Your task to perform on an android device: open app "Truecaller" (install if not already installed) and enter user name: "coauthor@gmail.com" and password: "quadrangle" Image 0: 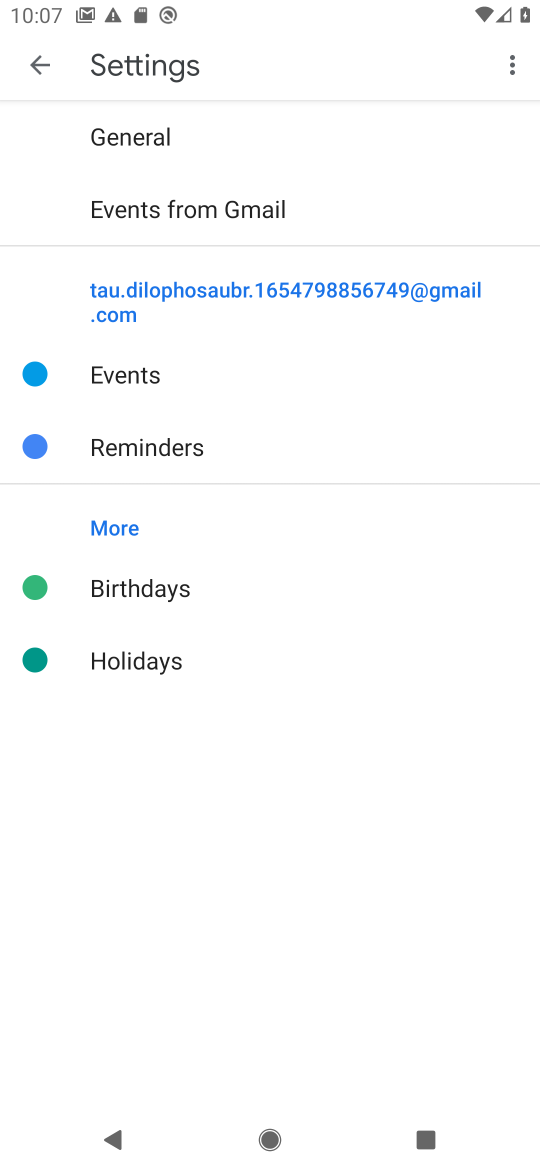
Step 0: press back button
Your task to perform on an android device: open app "Truecaller" (install if not already installed) and enter user name: "coauthor@gmail.com" and password: "quadrangle" Image 1: 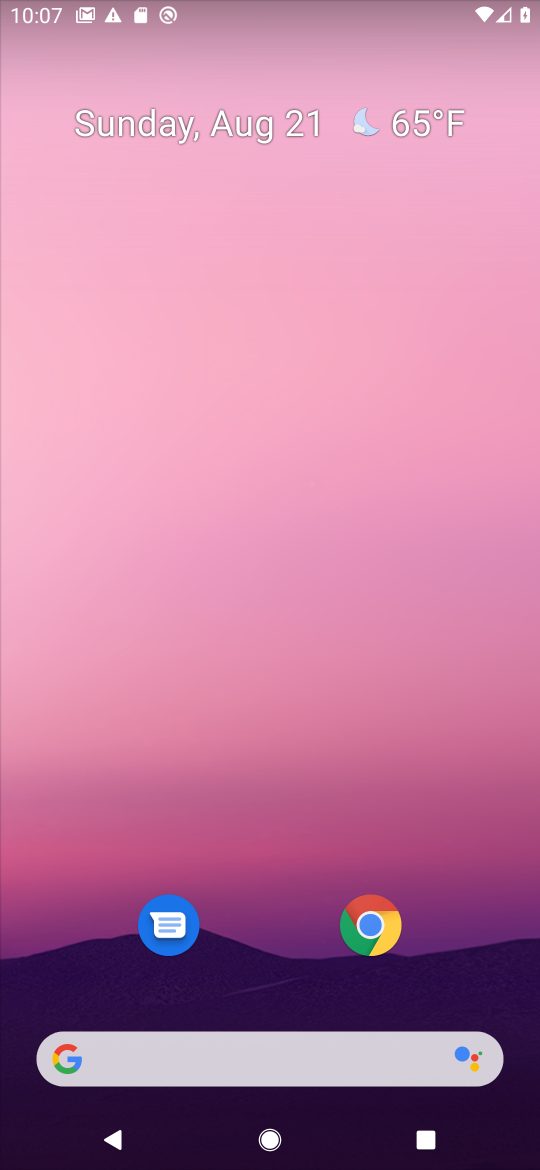
Step 1: drag from (267, 962) to (387, 7)
Your task to perform on an android device: open app "Truecaller" (install if not already installed) and enter user name: "coauthor@gmail.com" and password: "quadrangle" Image 2: 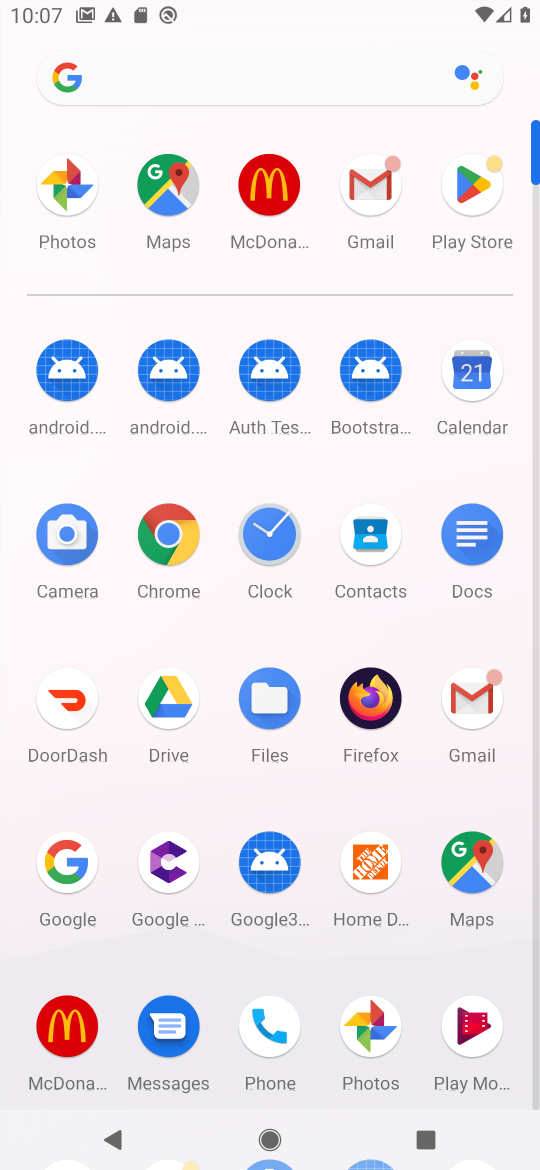
Step 2: click (482, 199)
Your task to perform on an android device: open app "Truecaller" (install if not already installed) and enter user name: "coauthor@gmail.com" and password: "quadrangle" Image 3: 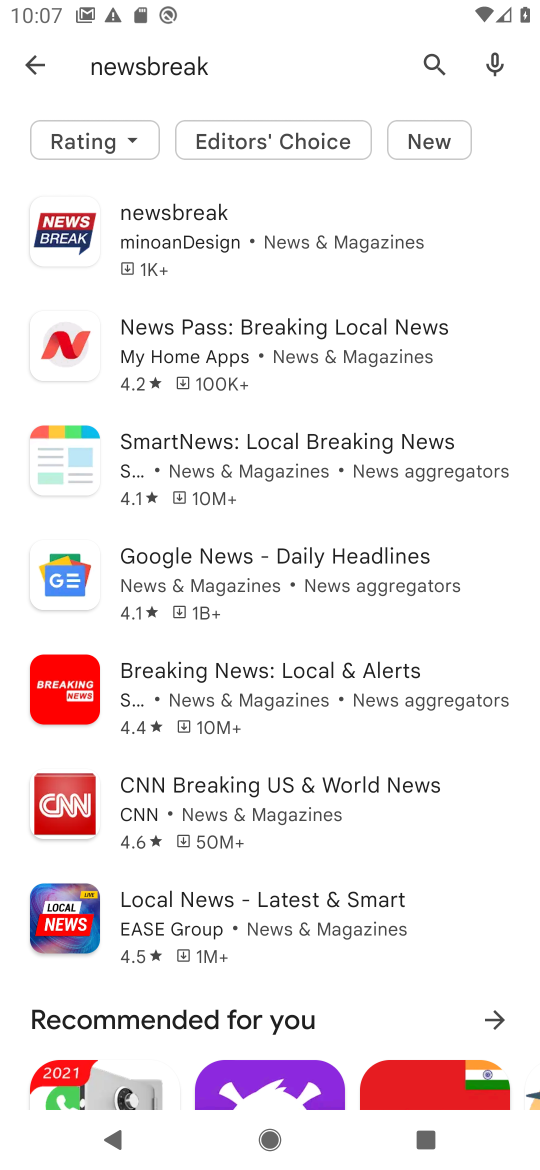
Step 3: click (435, 44)
Your task to perform on an android device: open app "Truecaller" (install if not already installed) and enter user name: "coauthor@gmail.com" and password: "quadrangle" Image 4: 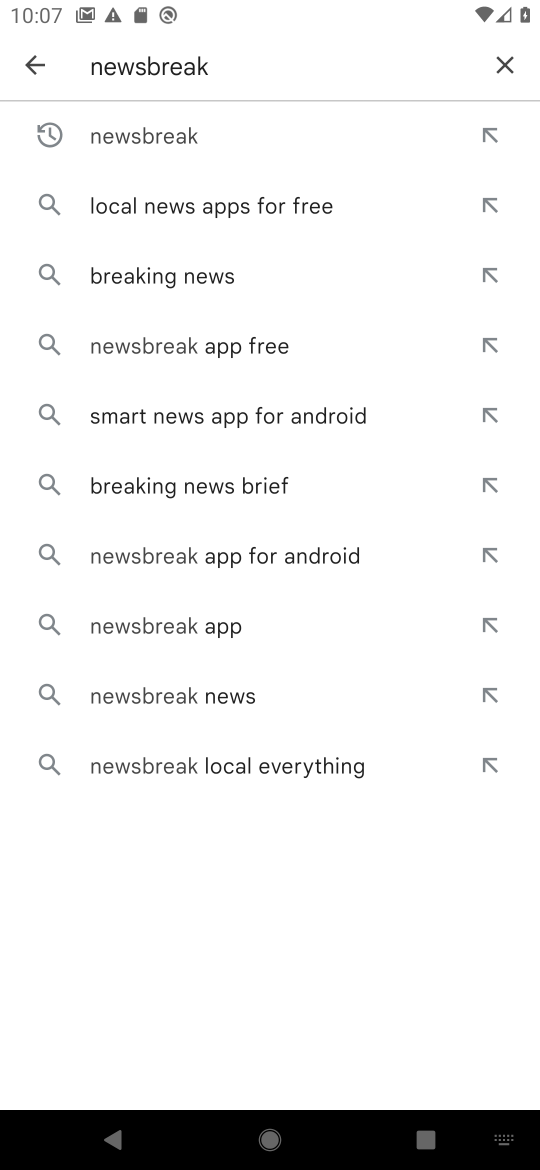
Step 4: click (508, 66)
Your task to perform on an android device: open app "Truecaller" (install if not already installed) and enter user name: "coauthor@gmail.com" and password: "quadrangle" Image 5: 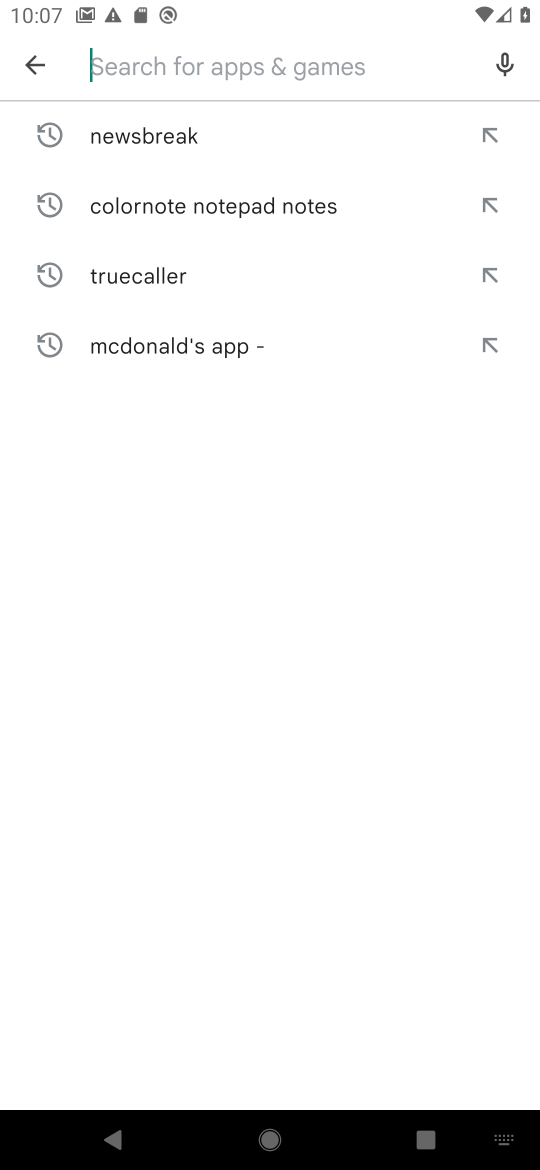
Step 5: click (176, 48)
Your task to perform on an android device: open app "Truecaller" (install if not already installed) and enter user name: "coauthor@gmail.com" and password: "quadrangle" Image 6: 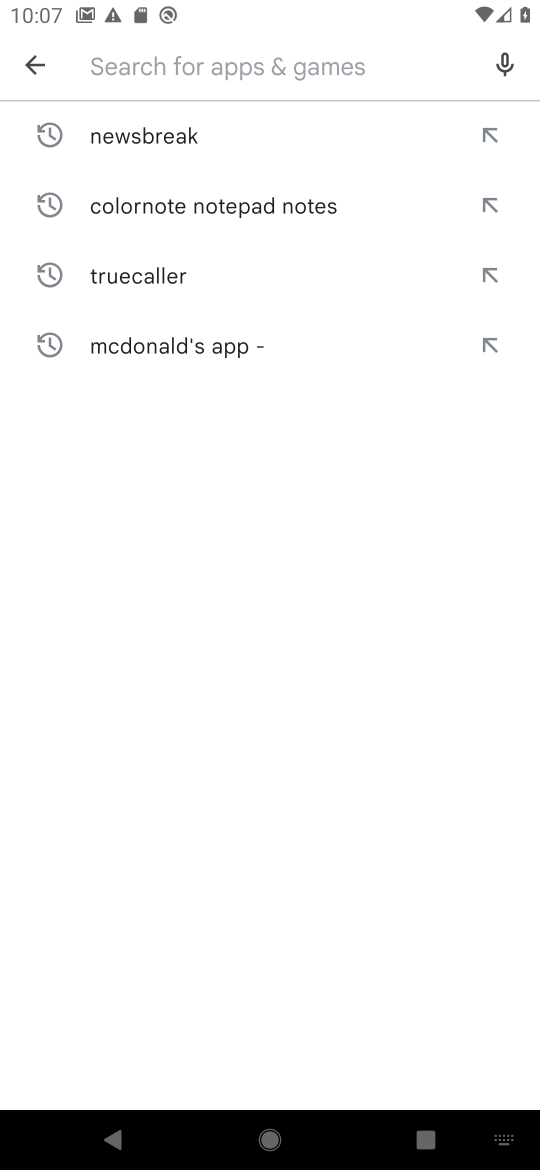
Step 6: type "truecaller"
Your task to perform on an android device: open app "Truecaller" (install if not already installed) and enter user name: "coauthor@gmail.com" and password: "quadrangle" Image 7: 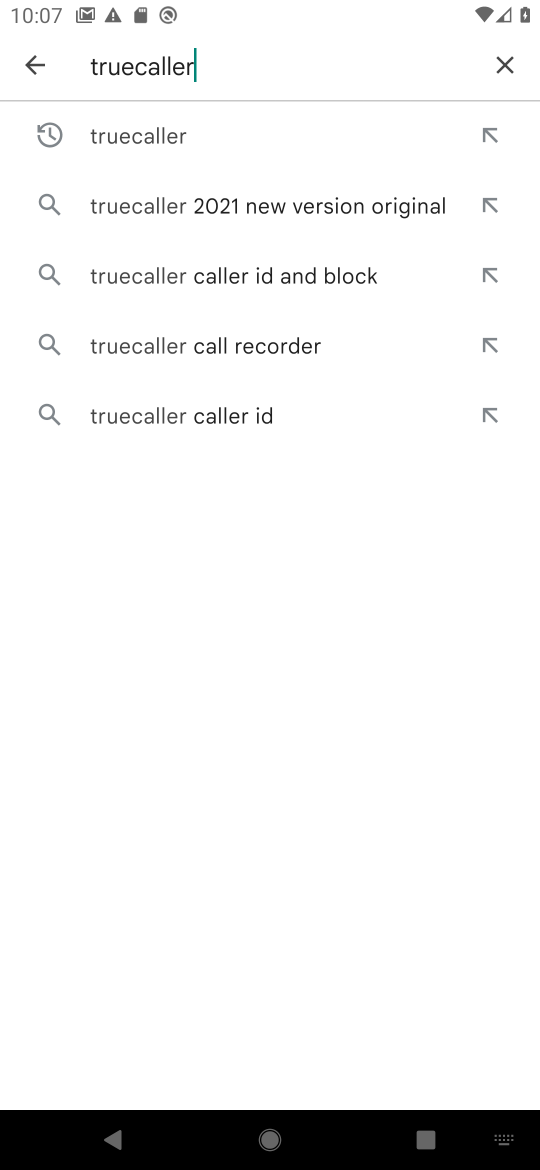
Step 7: click (91, 144)
Your task to perform on an android device: open app "Truecaller" (install if not already installed) and enter user name: "coauthor@gmail.com" and password: "quadrangle" Image 8: 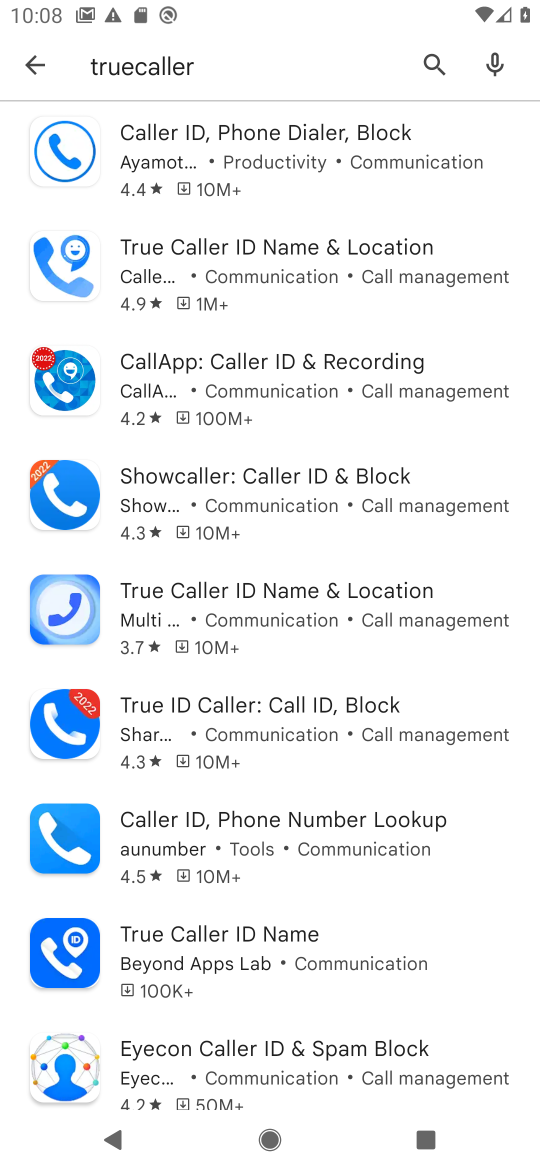
Step 8: click (333, 136)
Your task to perform on an android device: open app "Truecaller" (install if not already installed) and enter user name: "coauthor@gmail.com" and password: "quadrangle" Image 9: 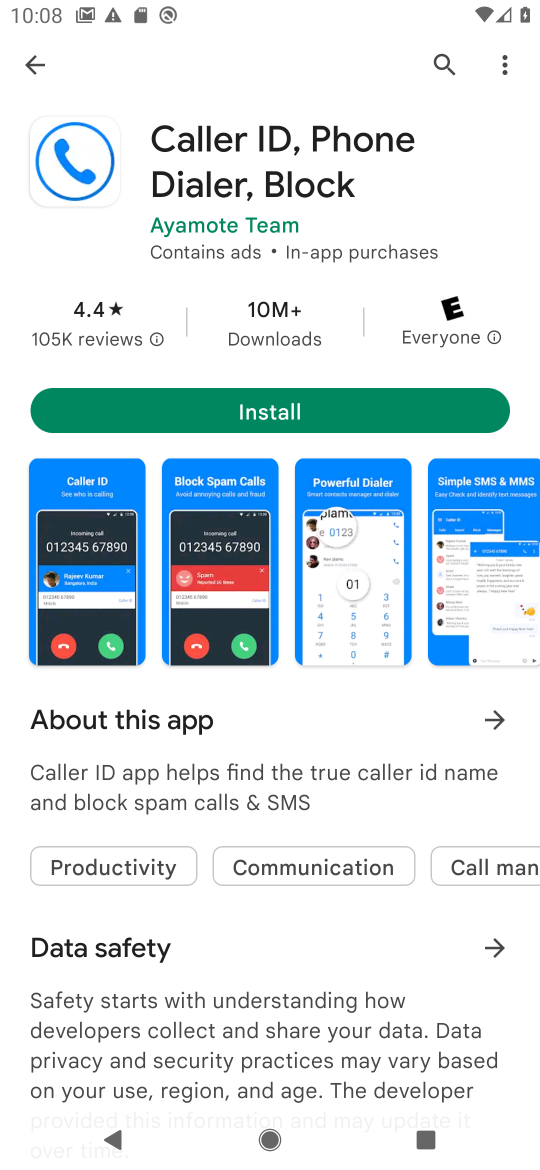
Step 9: task complete